Your task to perform on an android device: open chrome and create a bookmark for the current page Image 0: 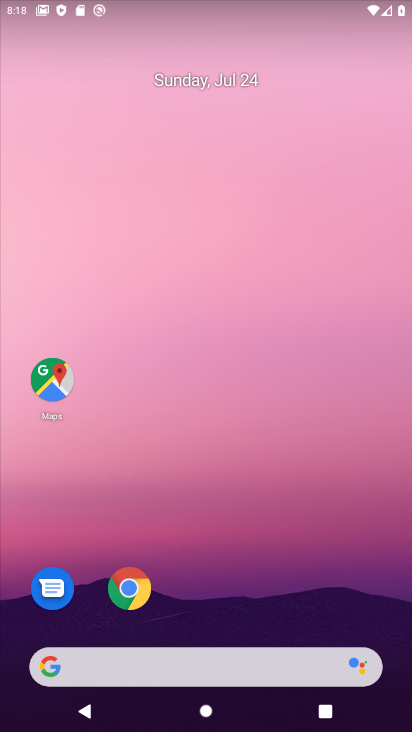
Step 0: drag from (256, 591) to (248, 232)
Your task to perform on an android device: open chrome and create a bookmark for the current page Image 1: 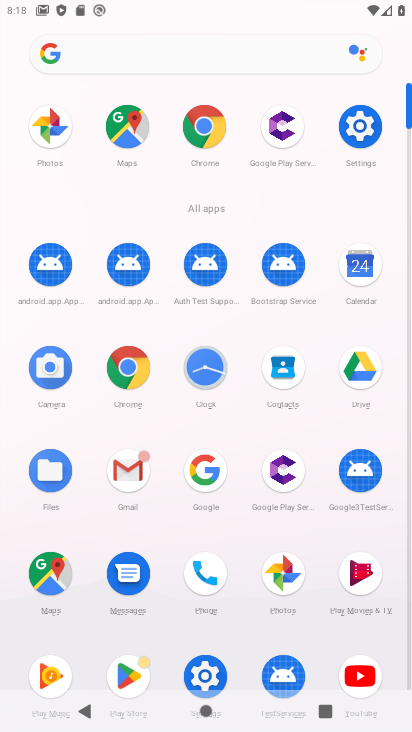
Step 1: click (213, 107)
Your task to perform on an android device: open chrome and create a bookmark for the current page Image 2: 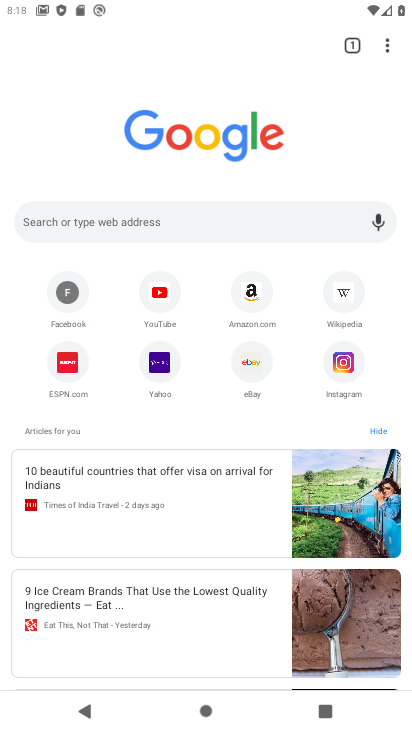
Step 2: click (389, 34)
Your task to perform on an android device: open chrome and create a bookmark for the current page Image 3: 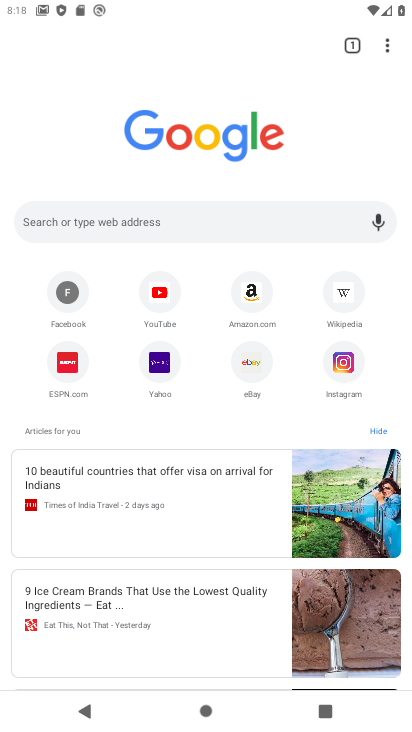
Step 3: click (391, 47)
Your task to perform on an android device: open chrome and create a bookmark for the current page Image 4: 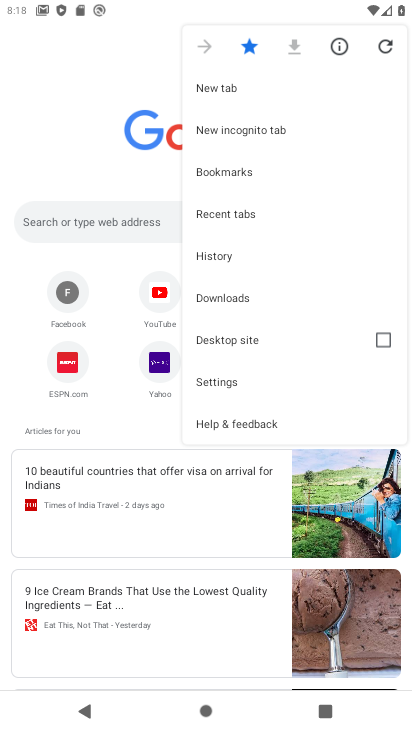
Step 4: click (260, 46)
Your task to perform on an android device: open chrome and create a bookmark for the current page Image 5: 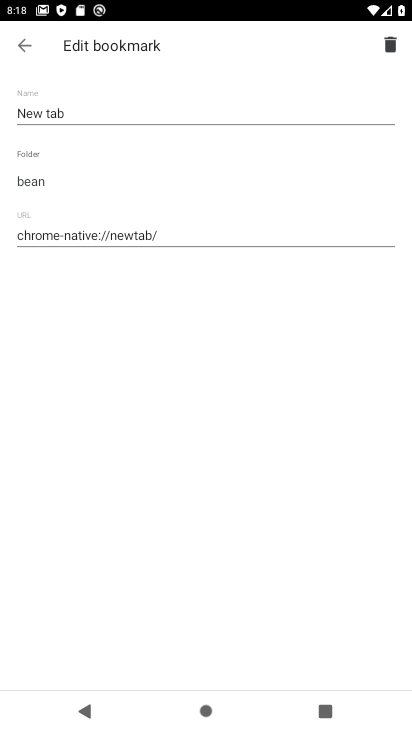
Step 5: click (19, 42)
Your task to perform on an android device: open chrome and create a bookmark for the current page Image 6: 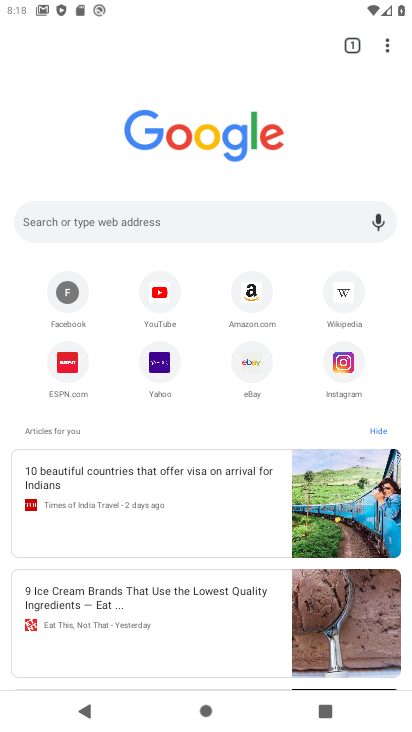
Step 6: task complete